Your task to perform on an android device: turn on showing notifications on the lock screen Image 0: 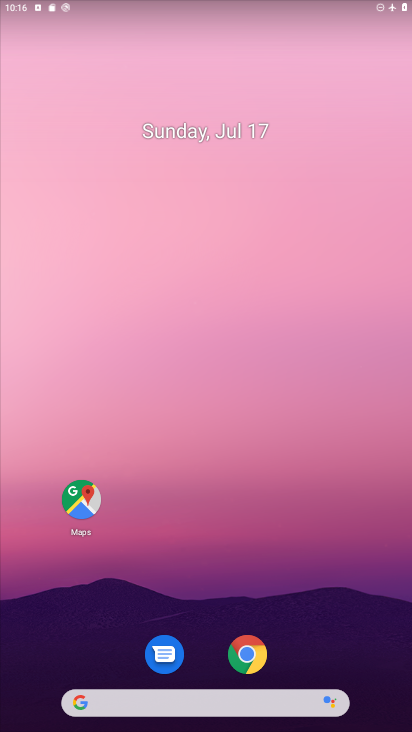
Step 0: drag from (206, 583) to (189, 43)
Your task to perform on an android device: turn on showing notifications on the lock screen Image 1: 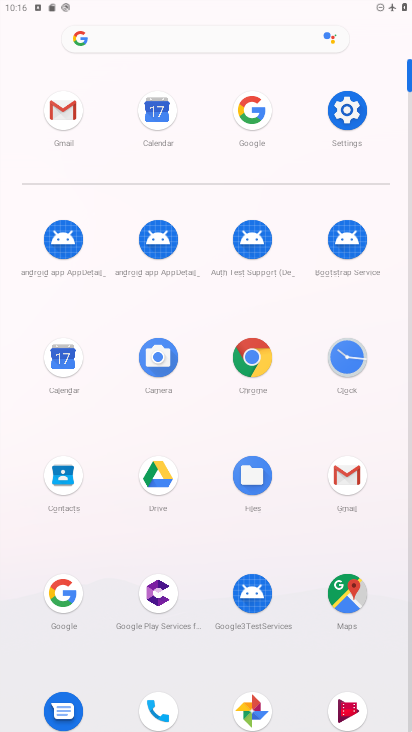
Step 1: click (369, 115)
Your task to perform on an android device: turn on showing notifications on the lock screen Image 2: 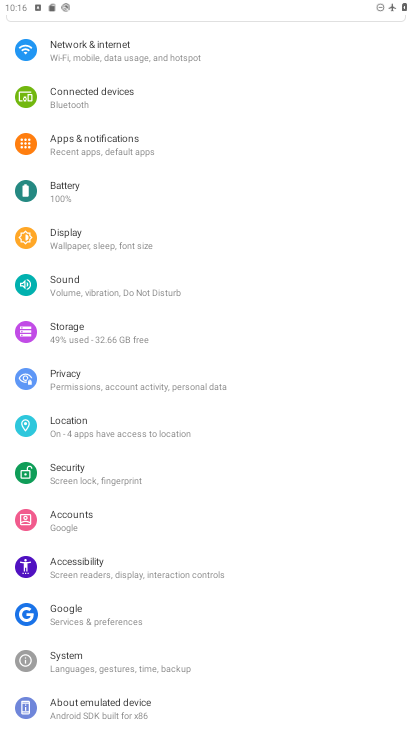
Step 2: click (135, 145)
Your task to perform on an android device: turn on showing notifications on the lock screen Image 3: 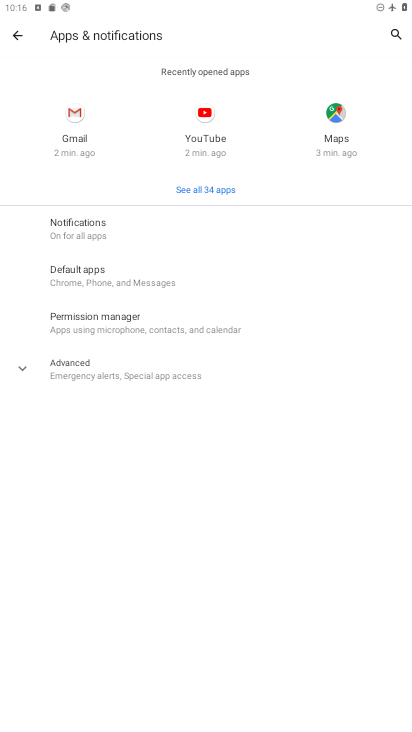
Step 3: click (110, 231)
Your task to perform on an android device: turn on showing notifications on the lock screen Image 4: 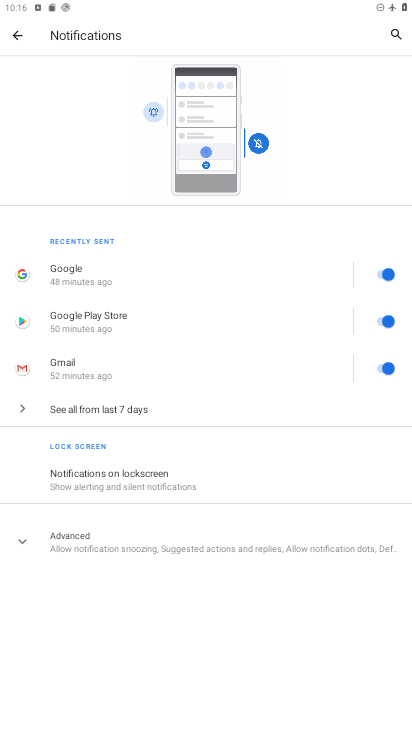
Step 4: click (148, 491)
Your task to perform on an android device: turn on showing notifications on the lock screen Image 5: 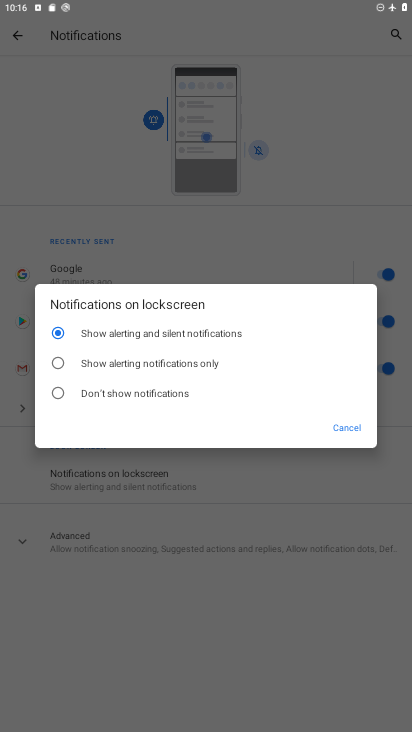
Step 5: task complete